Your task to perform on an android device: Check the news Image 0: 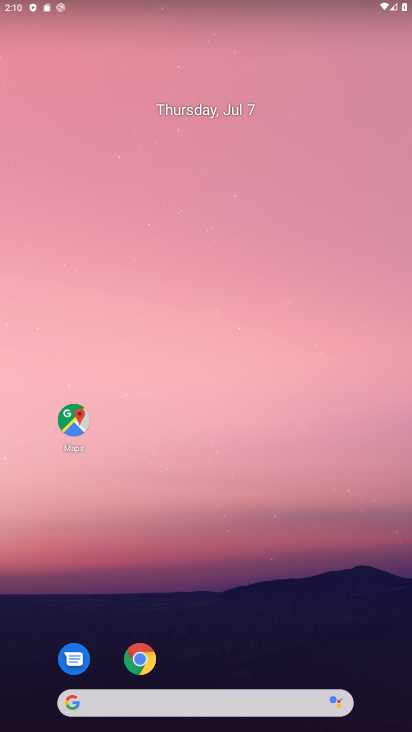
Step 0: drag from (229, 666) to (284, 262)
Your task to perform on an android device: Check the news Image 1: 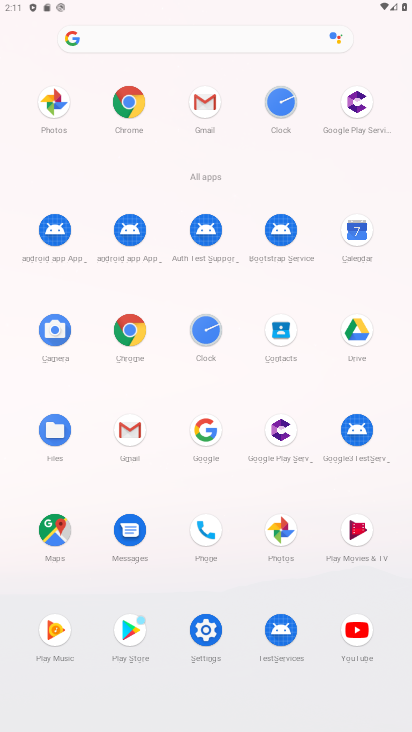
Step 1: drag from (207, 427) to (262, 286)
Your task to perform on an android device: Check the news Image 2: 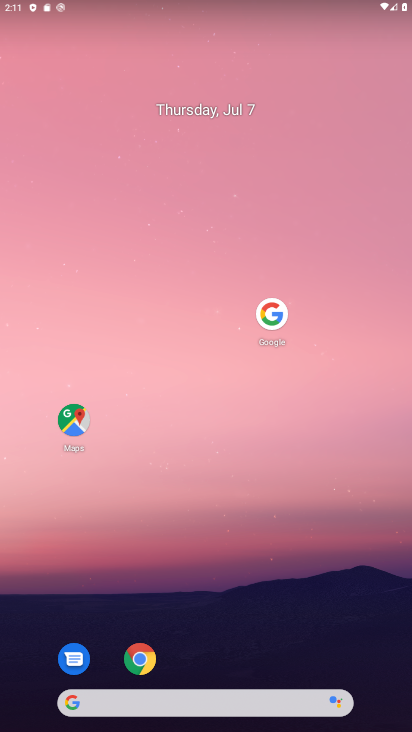
Step 2: click (271, 307)
Your task to perform on an android device: Check the news Image 3: 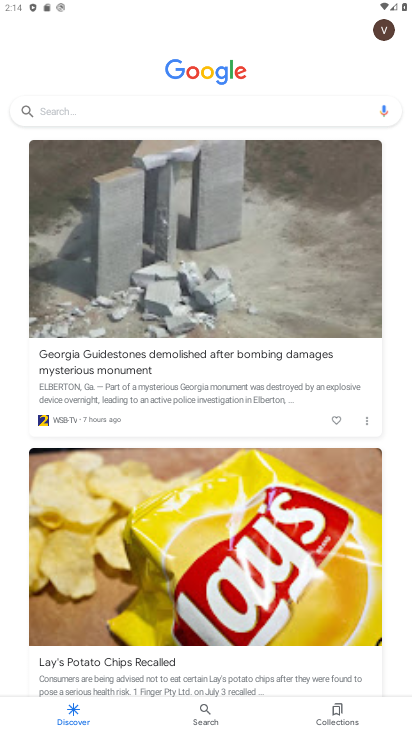
Step 3: click (218, 101)
Your task to perform on an android device: Check the news Image 4: 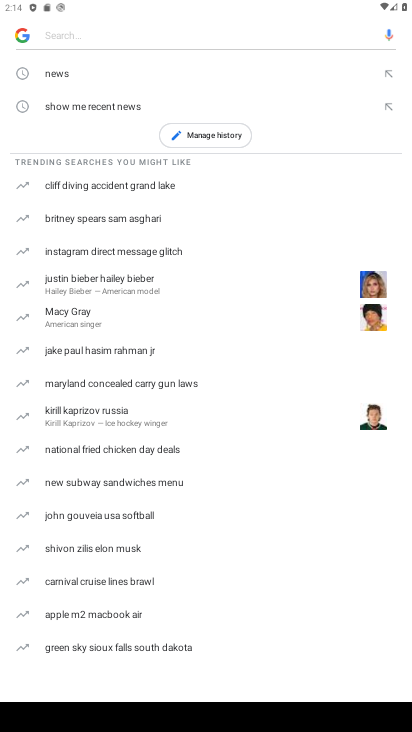
Step 4: click (100, 65)
Your task to perform on an android device: Check the news Image 5: 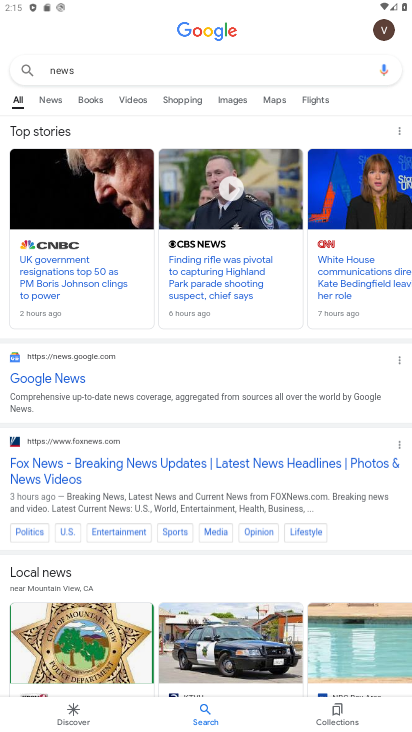
Step 5: task complete